Your task to perform on an android device: When is my next meeting? Image 0: 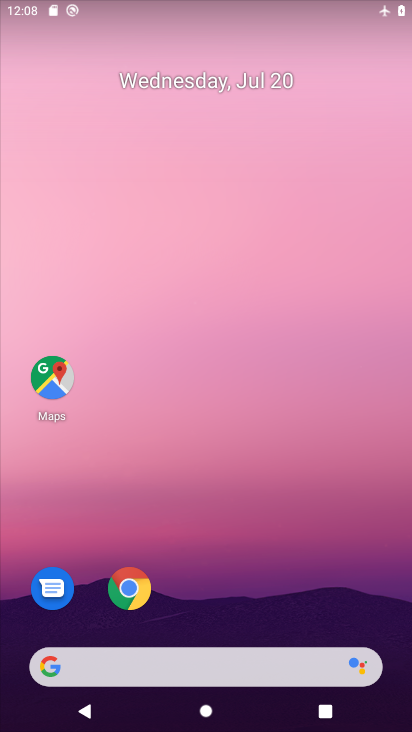
Step 0: drag from (196, 399) to (190, 189)
Your task to perform on an android device: When is my next meeting? Image 1: 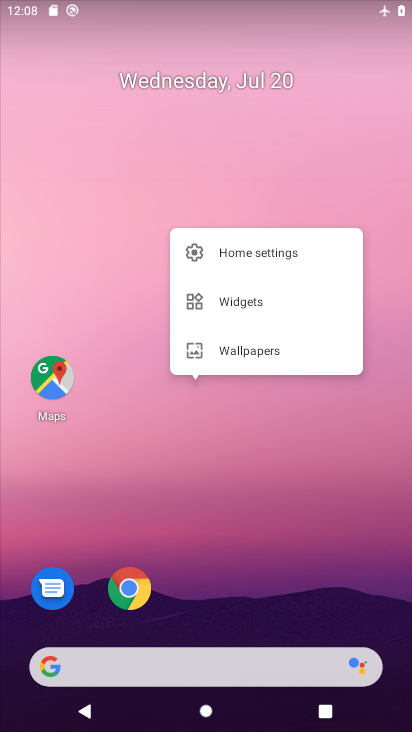
Step 1: click (259, 556)
Your task to perform on an android device: When is my next meeting? Image 2: 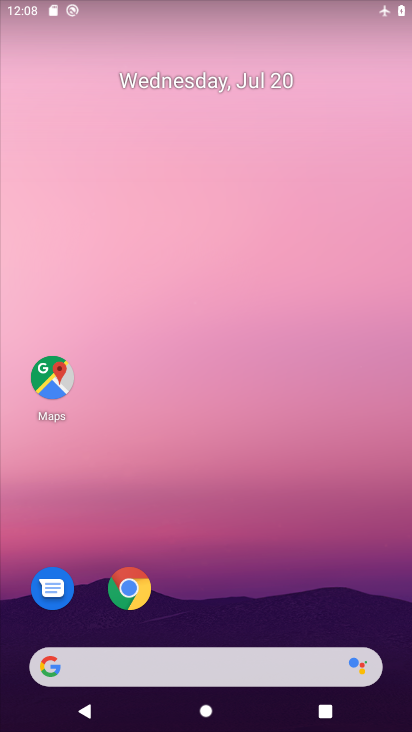
Step 2: drag from (232, 567) to (246, 185)
Your task to perform on an android device: When is my next meeting? Image 3: 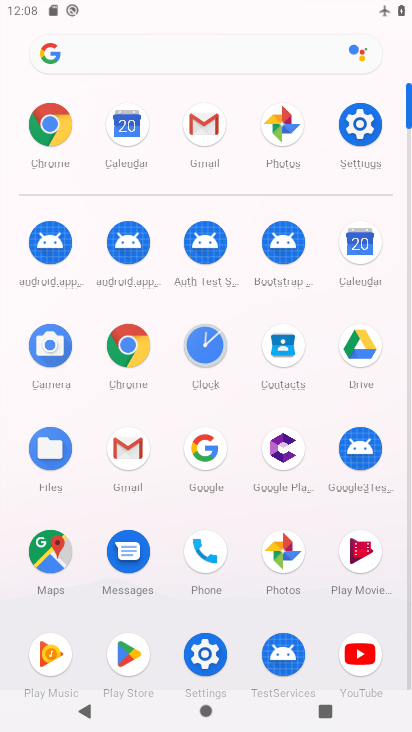
Step 3: click (365, 231)
Your task to perform on an android device: When is my next meeting? Image 4: 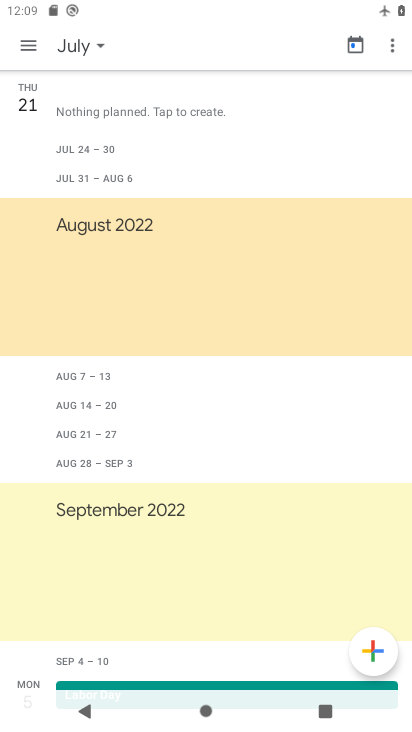
Step 4: task complete